Your task to perform on an android device: What's the top post on reddit? Image 0: 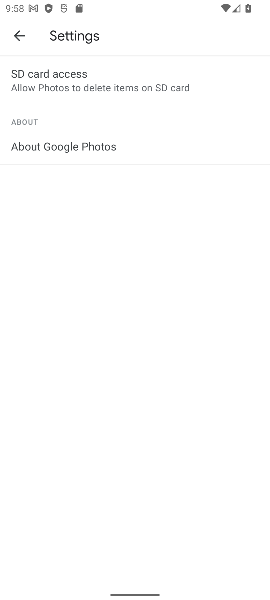
Step 0: press home button
Your task to perform on an android device: What's the top post on reddit? Image 1: 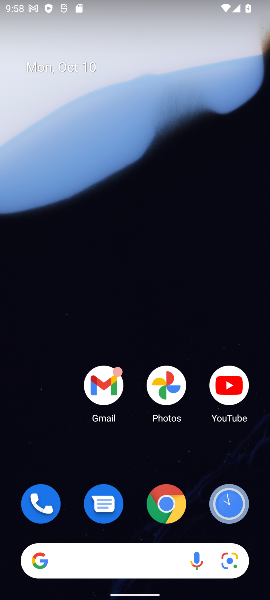
Step 1: click (168, 507)
Your task to perform on an android device: What's the top post on reddit? Image 2: 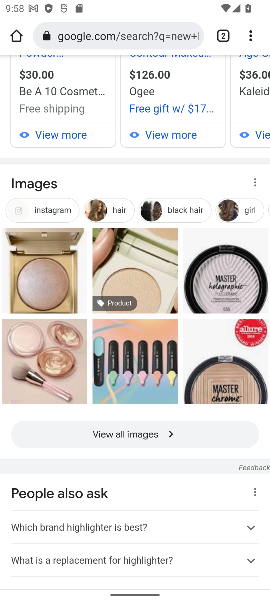
Step 2: click (119, 24)
Your task to perform on an android device: What's the top post on reddit? Image 3: 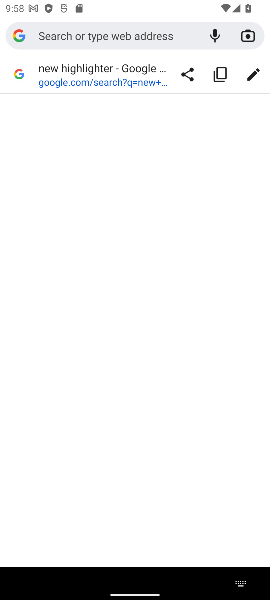
Step 3: press home button
Your task to perform on an android device: What's the top post on reddit? Image 4: 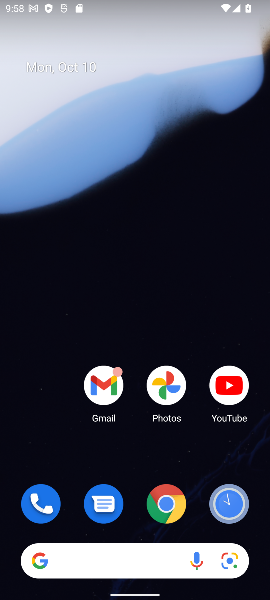
Step 4: drag from (199, 477) to (173, 89)
Your task to perform on an android device: What's the top post on reddit? Image 5: 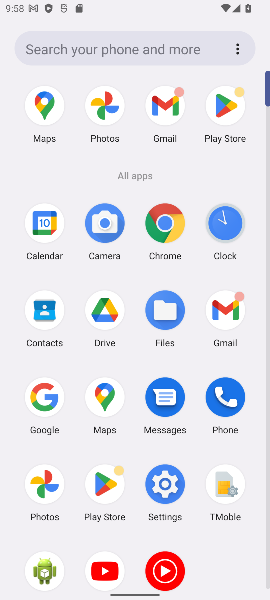
Step 5: click (109, 485)
Your task to perform on an android device: What's the top post on reddit? Image 6: 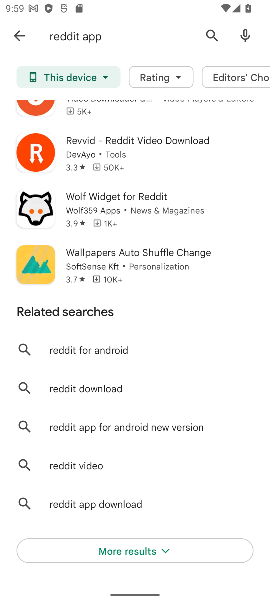
Step 6: click (209, 28)
Your task to perform on an android device: What's the top post on reddit? Image 7: 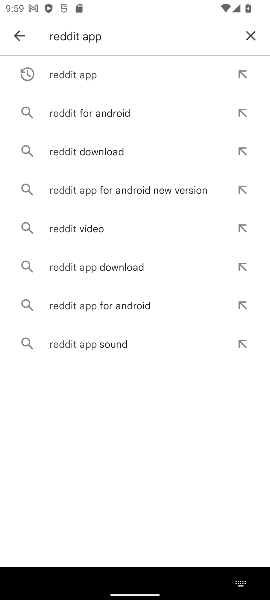
Step 7: click (249, 33)
Your task to perform on an android device: What's the top post on reddit? Image 8: 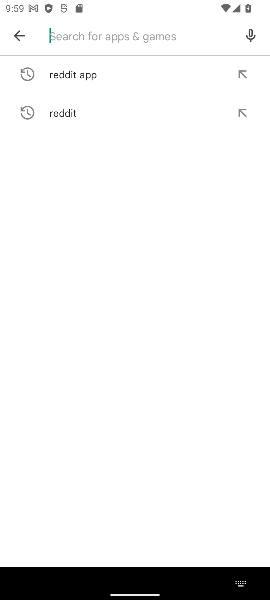
Step 8: type "reddit"
Your task to perform on an android device: What's the top post on reddit? Image 9: 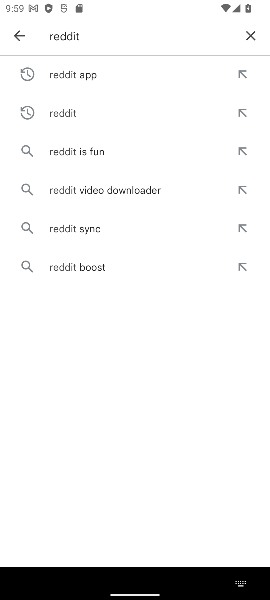
Step 9: click (76, 65)
Your task to perform on an android device: What's the top post on reddit? Image 10: 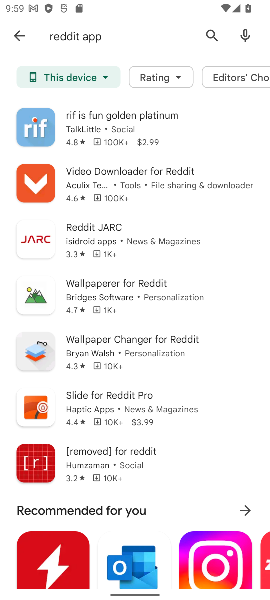
Step 10: task complete